Your task to perform on an android device: uninstall "YouTube Kids" Image 0: 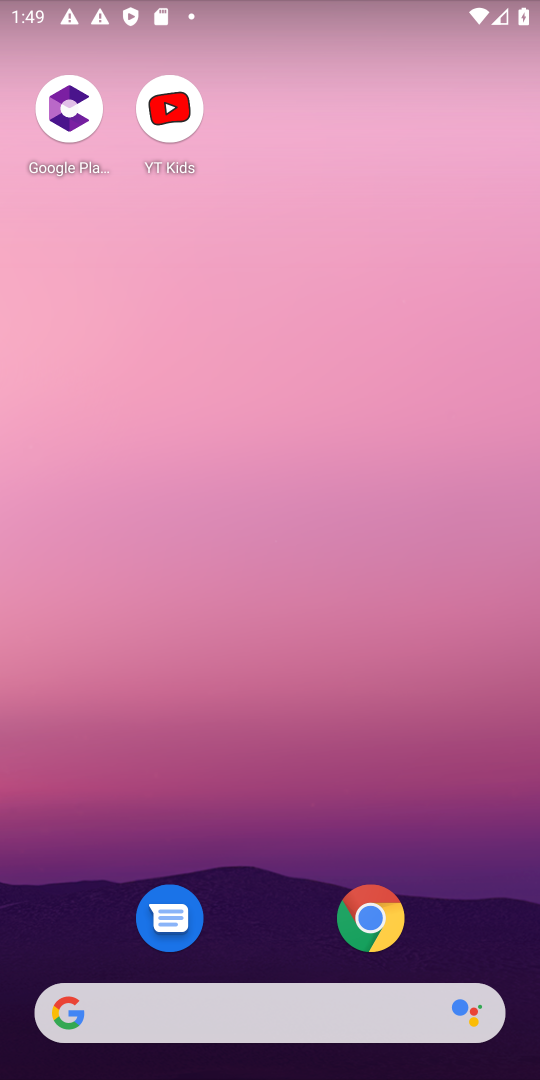
Step 0: click (234, 171)
Your task to perform on an android device: uninstall "YouTube Kids" Image 1: 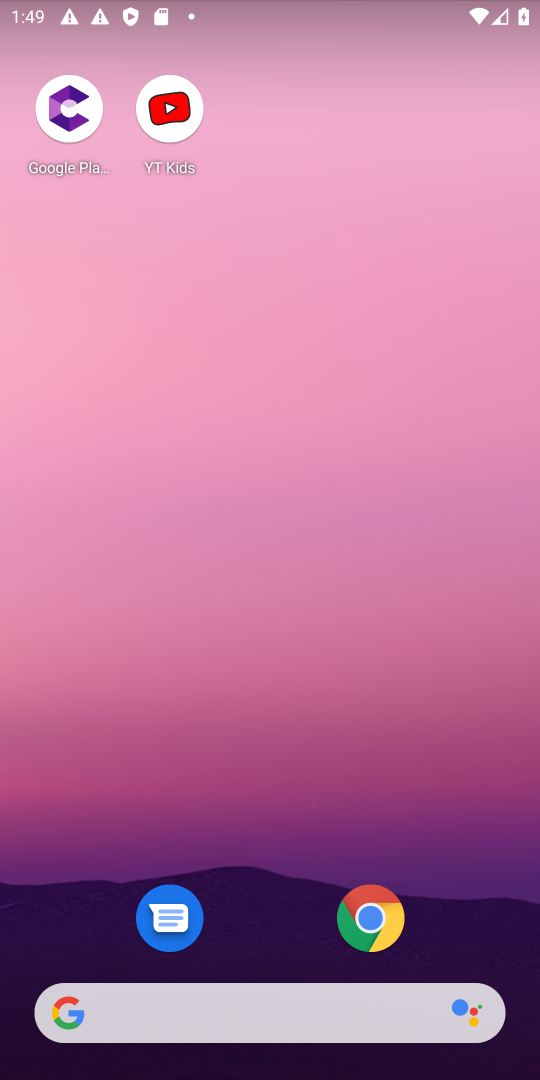
Step 1: drag from (201, 356) to (186, 215)
Your task to perform on an android device: uninstall "YouTube Kids" Image 2: 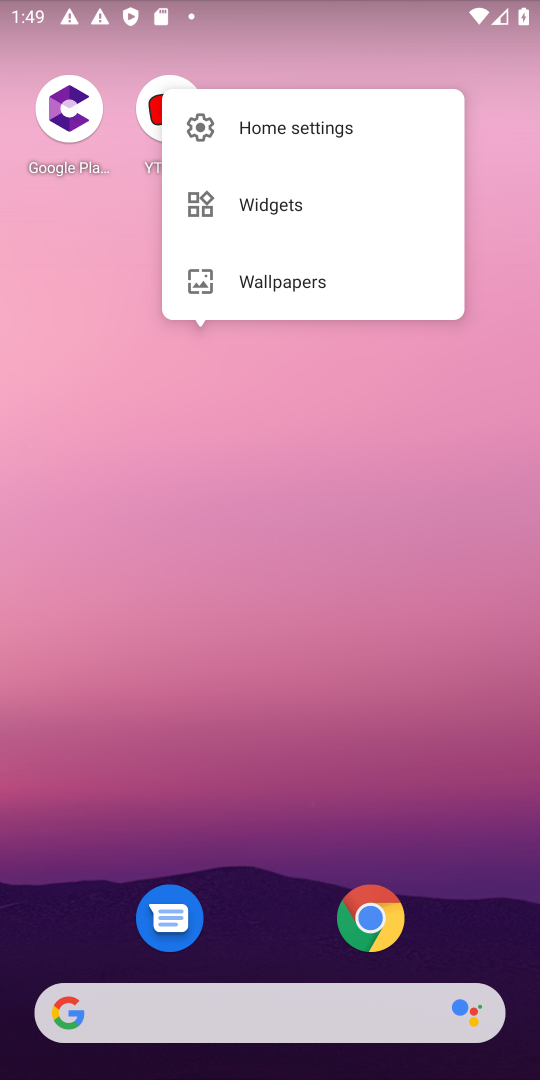
Step 2: drag from (252, 869) to (261, 158)
Your task to perform on an android device: uninstall "YouTube Kids" Image 3: 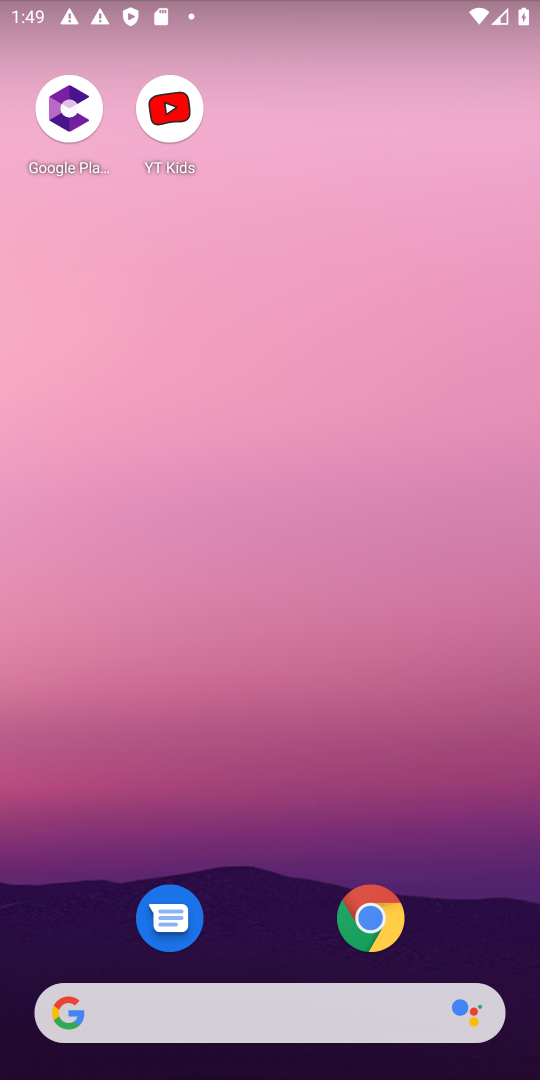
Step 3: drag from (253, 947) to (160, 54)
Your task to perform on an android device: uninstall "YouTube Kids" Image 4: 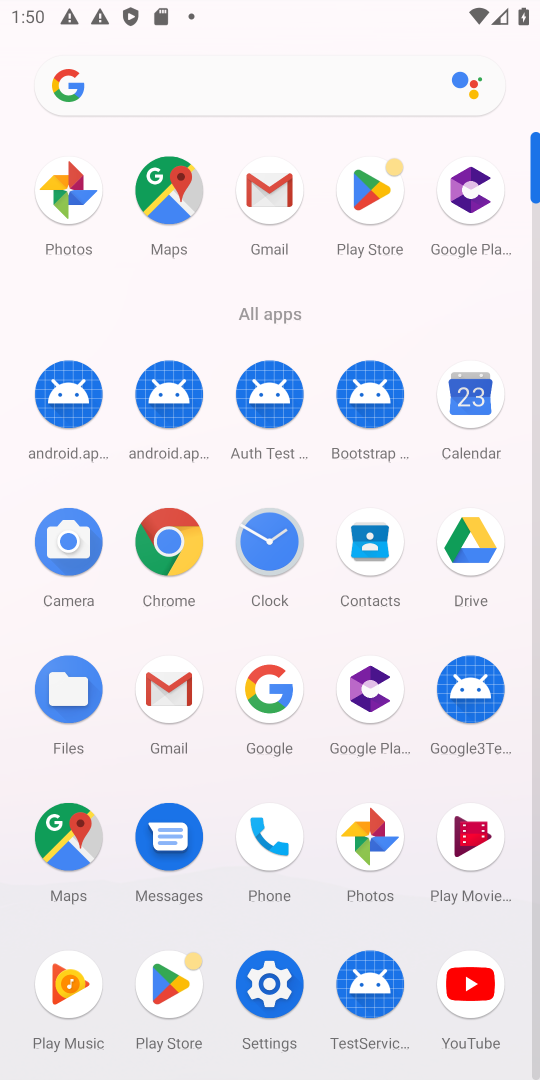
Step 4: click (380, 196)
Your task to perform on an android device: uninstall "YouTube Kids" Image 5: 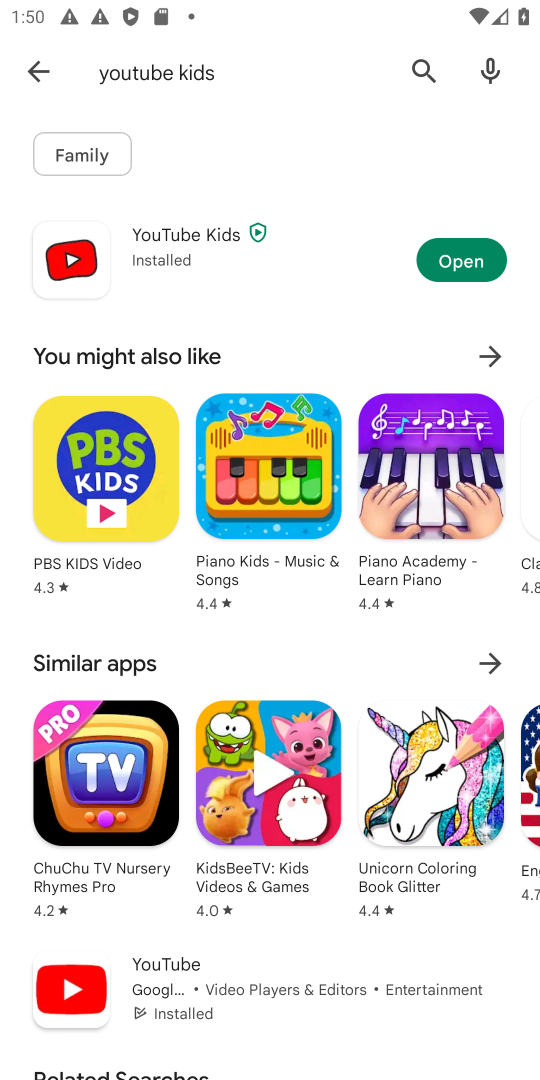
Step 5: click (35, 60)
Your task to perform on an android device: uninstall "YouTube Kids" Image 6: 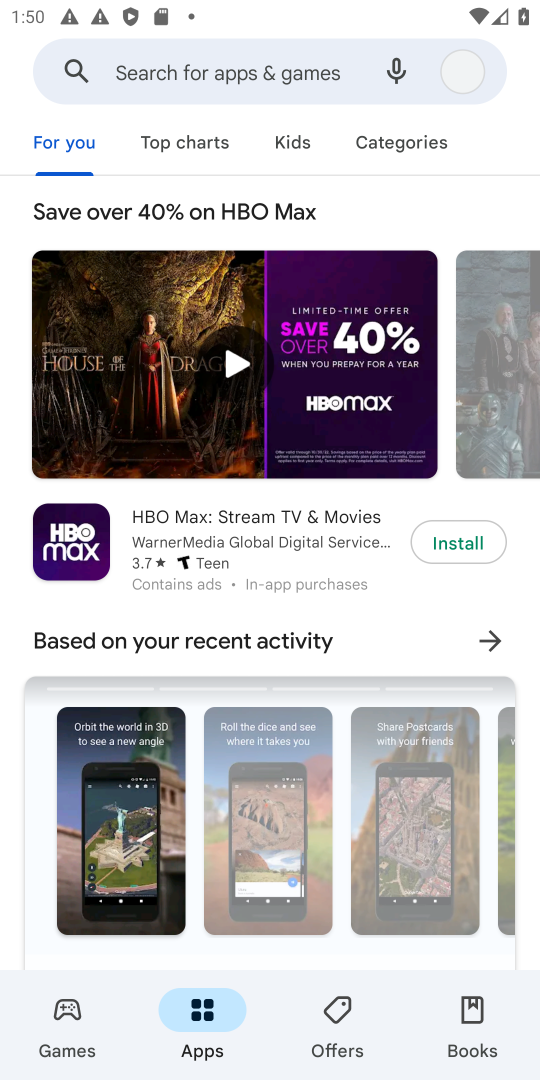
Step 6: click (35, 79)
Your task to perform on an android device: uninstall "YouTube Kids" Image 7: 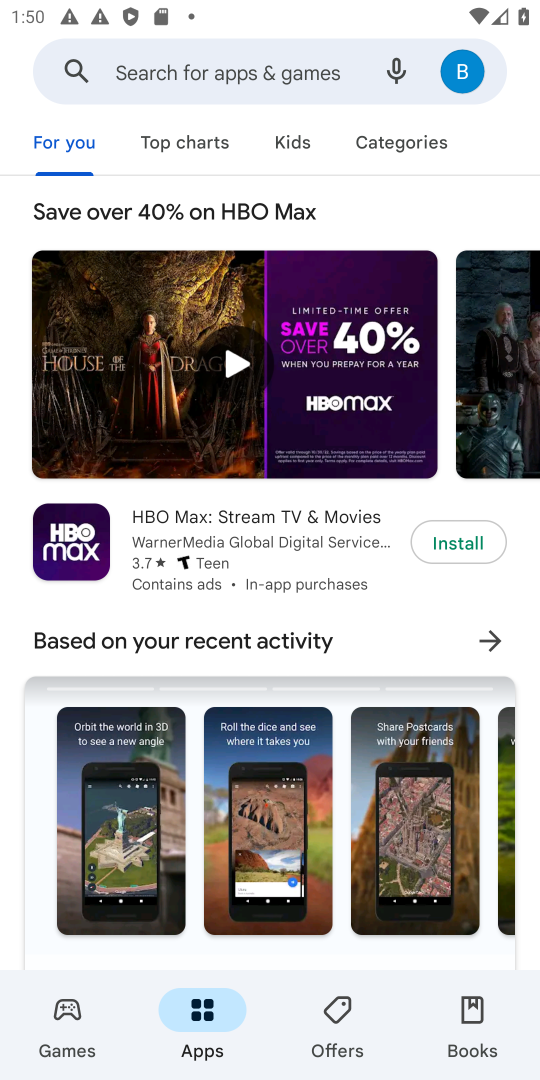
Step 7: click (197, 70)
Your task to perform on an android device: uninstall "YouTube Kids" Image 8: 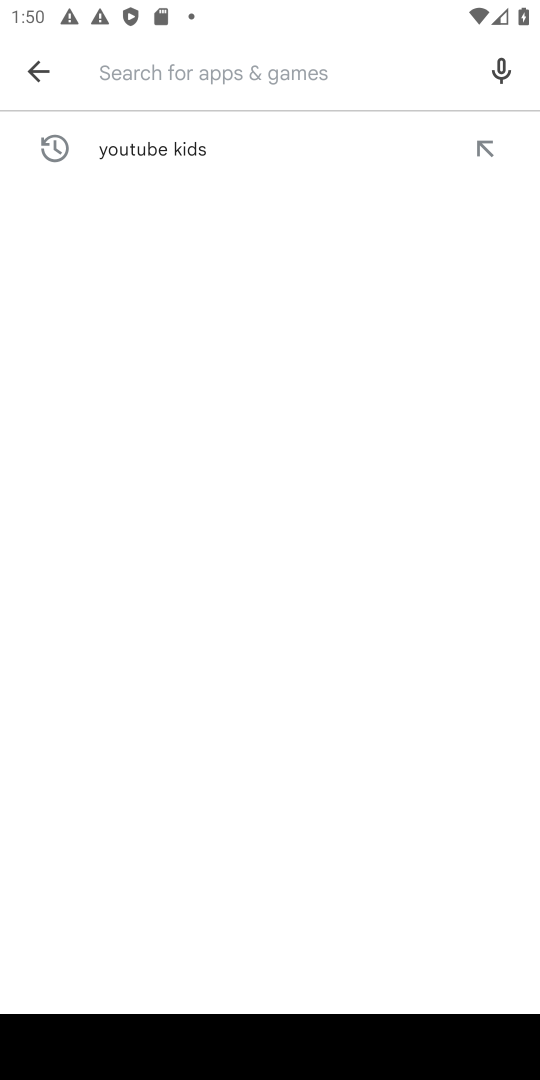
Step 8: type "YouTube Kids"
Your task to perform on an android device: uninstall "YouTube Kids" Image 9: 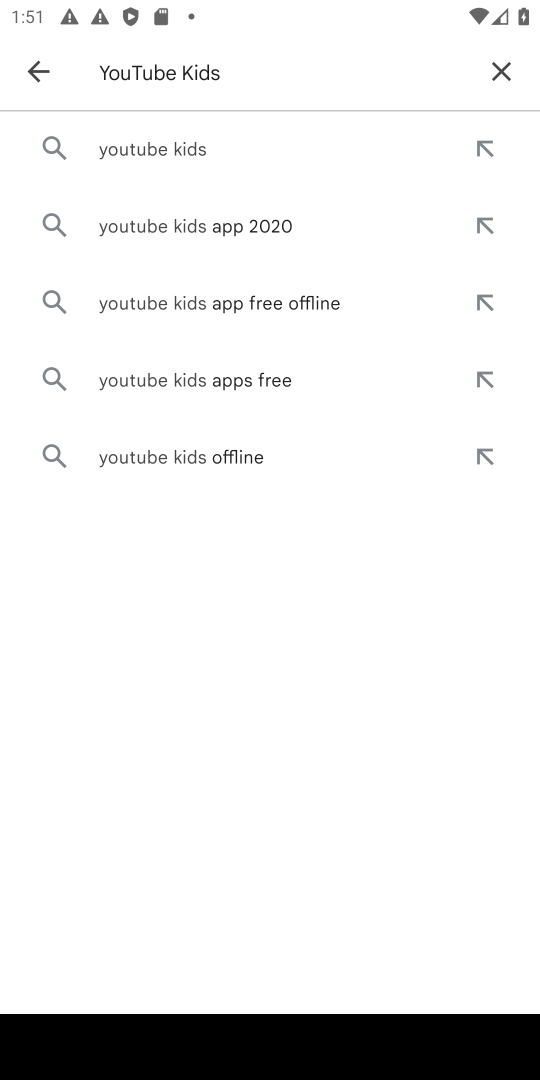
Step 9: click (150, 147)
Your task to perform on an android device: uninstall "YouTube Kids" Image 10: 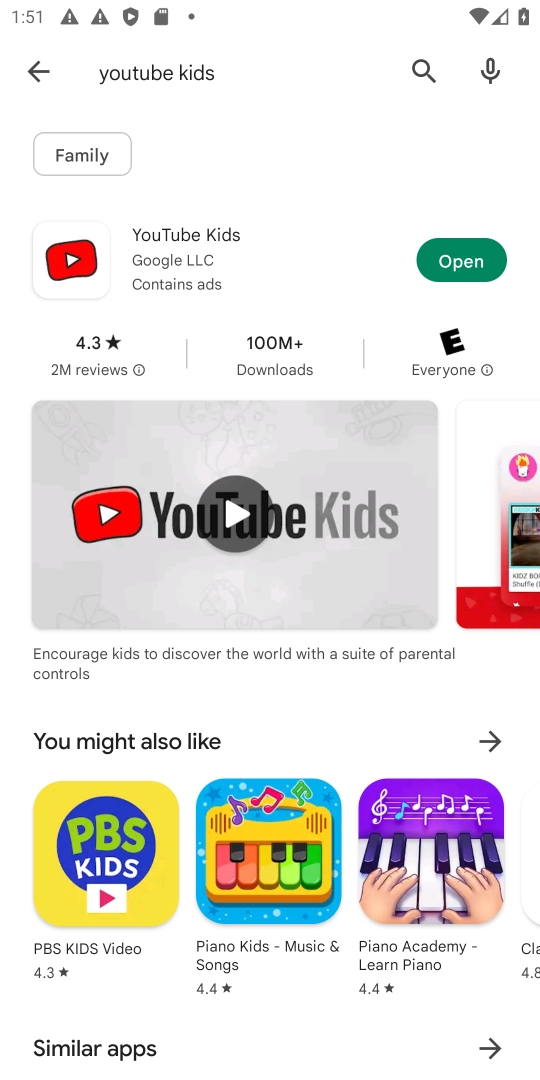
Step 10: click (171, 147)
Your task to perform on an android device: uninstall "YouTube Kids" Image 11: 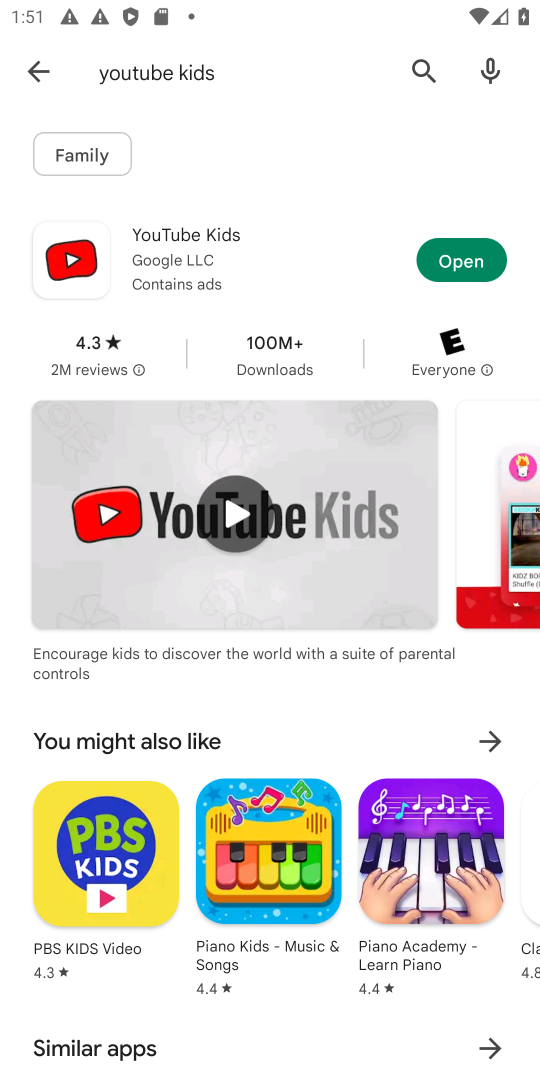
Step 11: click (434, 262)
Your task to perform on an android device: uninstall "YouTube Kids" Image 12: 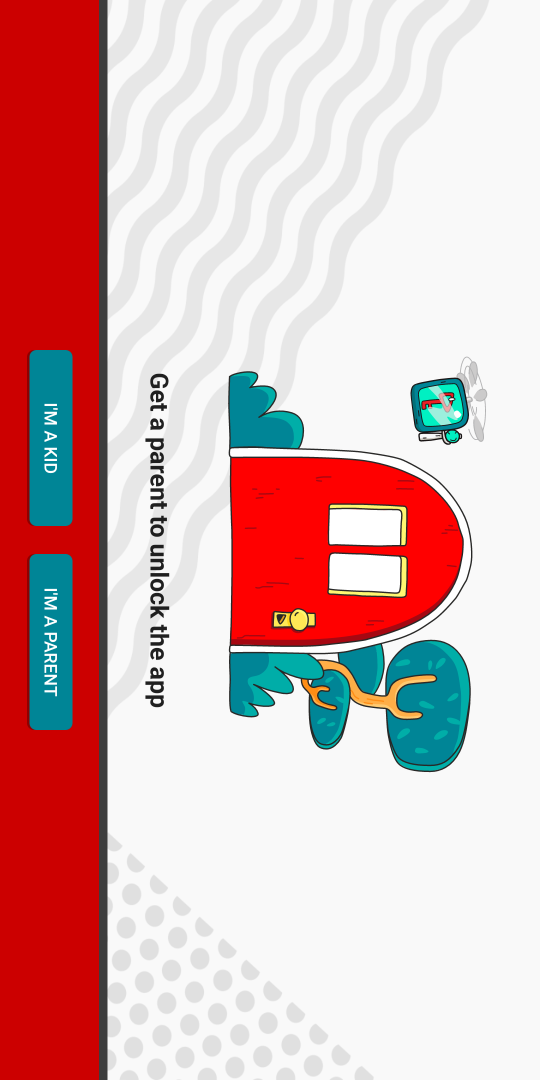
Step 12: press back button
Your task to perform on an android device: uninstall "YouTube Kids" Image 13: 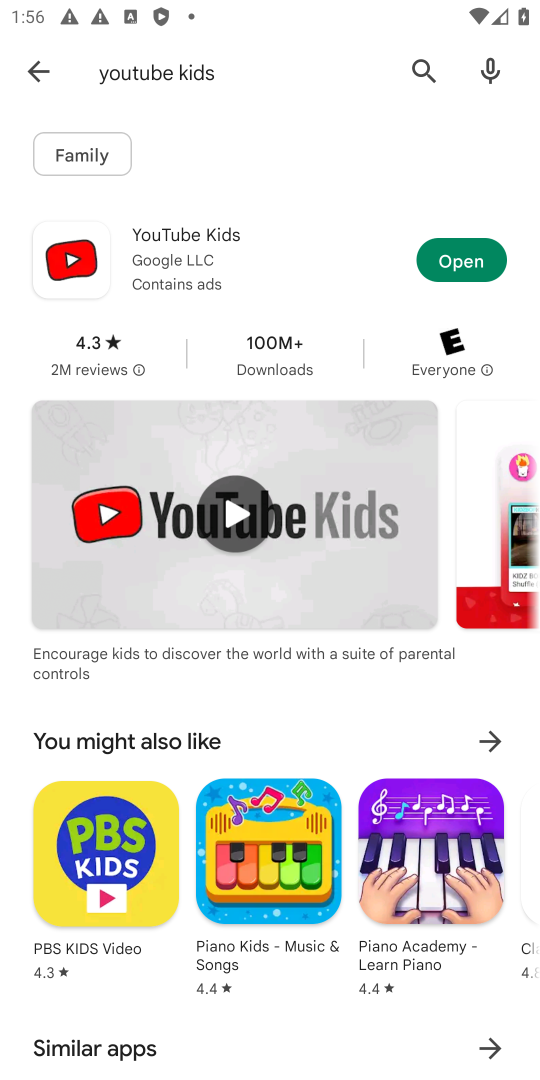
Step 13: click (186, 244)
Your task to perform on an android device: uninstall "YouTube Kids" Image 14: 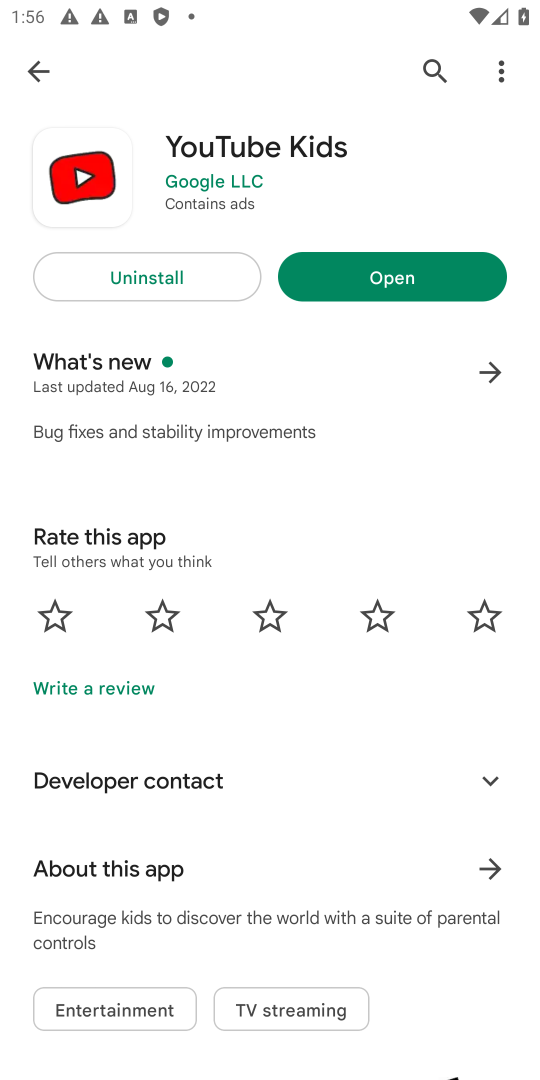
Step 14: click (131, 278)
Your task to perform on an android device: uninstall "YouTube Kids" Image 15: 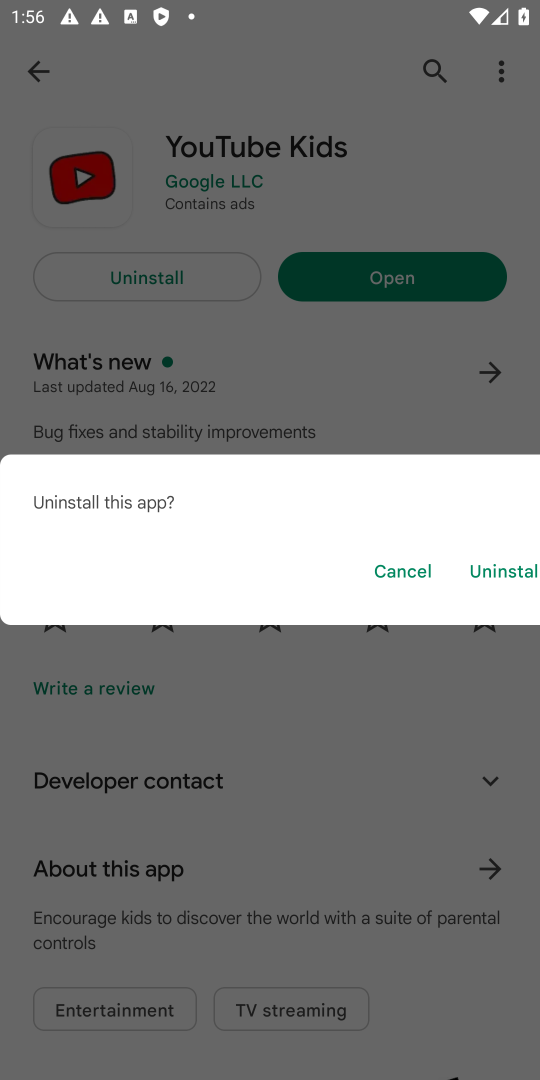
Step 15: click (509, 572)
Your task to perform on an android device: uninstall "YouTube Kids" Image 16: 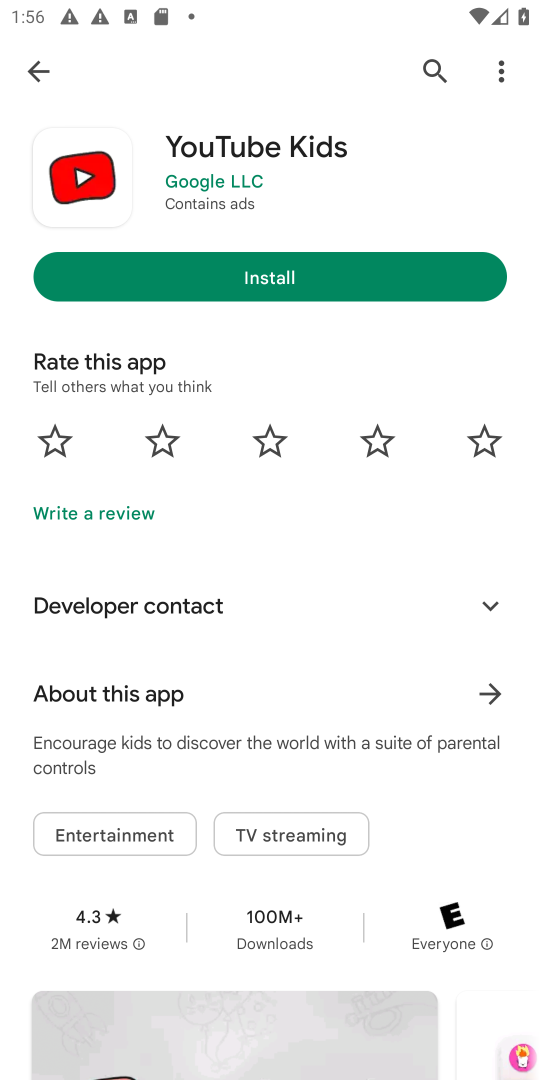
Step 16: task complete